Your task to perform on an android device: Open the downloads Image 0: 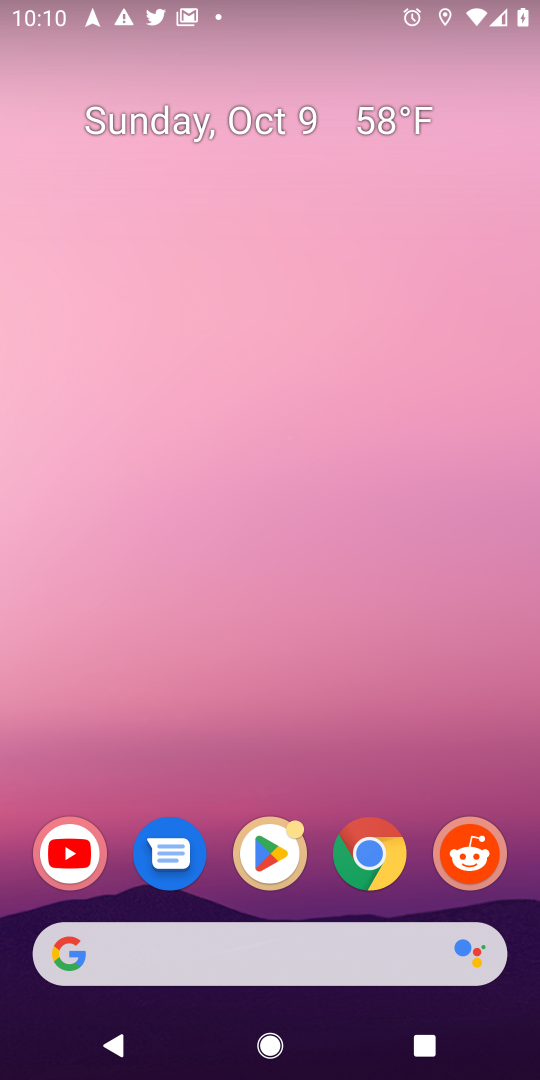
Step 0: drag from (352, 785) to (327, 20)
Your task to perform on an android device: Open the downloads Image 1: 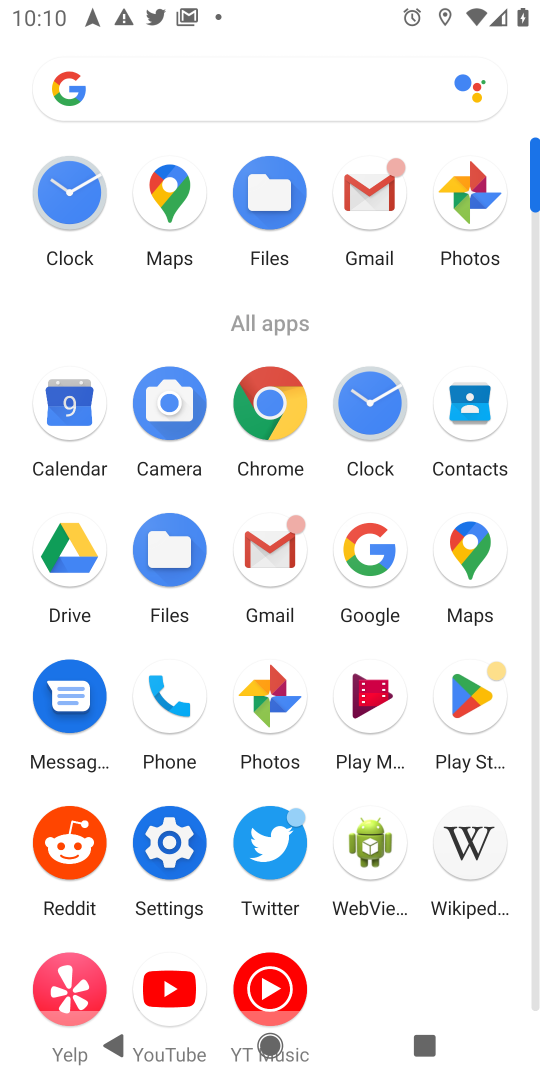
Step 1: click (176, 528)
Your task to perform on an android device: Open the downloads Image 2: 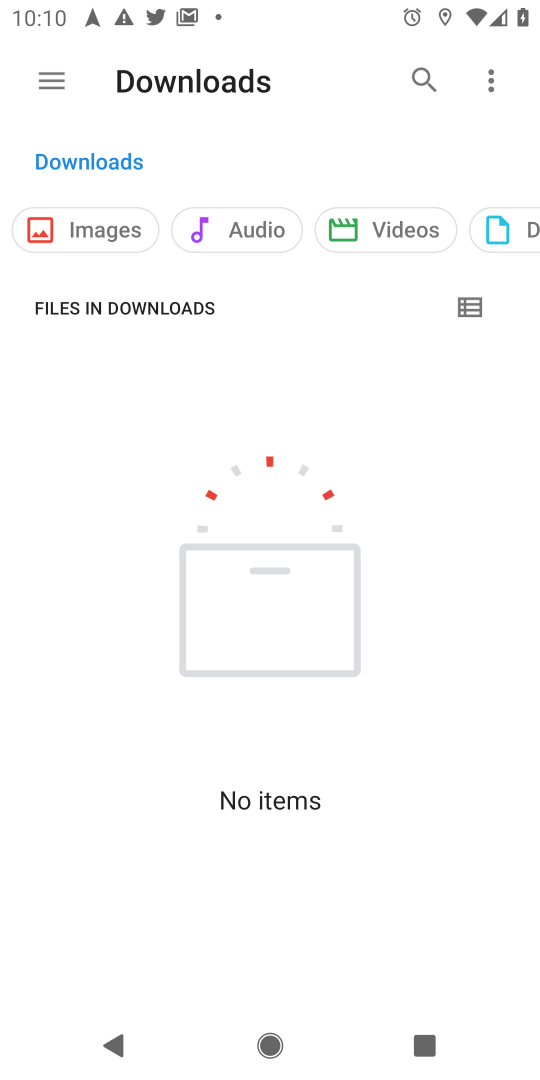
Step 2: task complete